Your task to perform on an android device: Add usb-c to usb-a to the cart on target.com, then select checkout. Image 0: 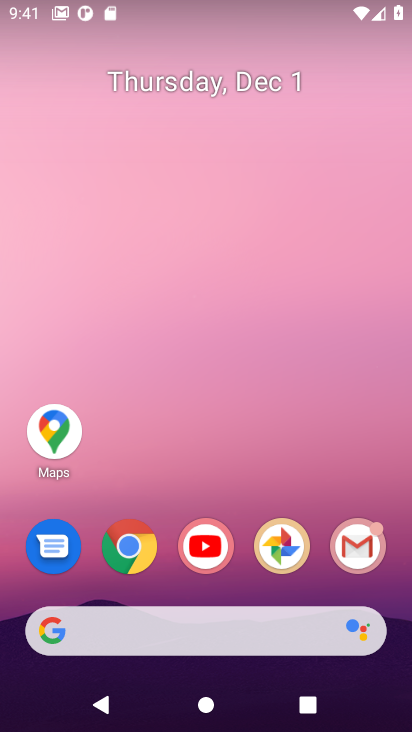
Step 0: click (122, 551)
Your task to perform on an android device: Add usb-c to usb-a to the cart on target.com, then select checkout. Image 1: 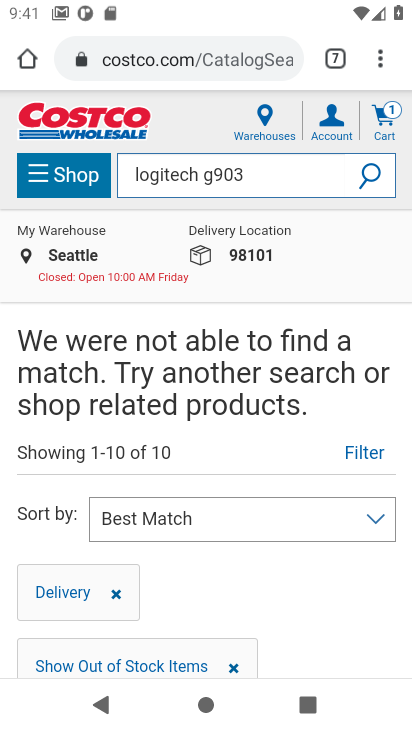
Step 1: click (139, 60)
Your task to perform on an android device: Add usb-c to usb-a to the cart on target.com, then select checkout. Image 2: 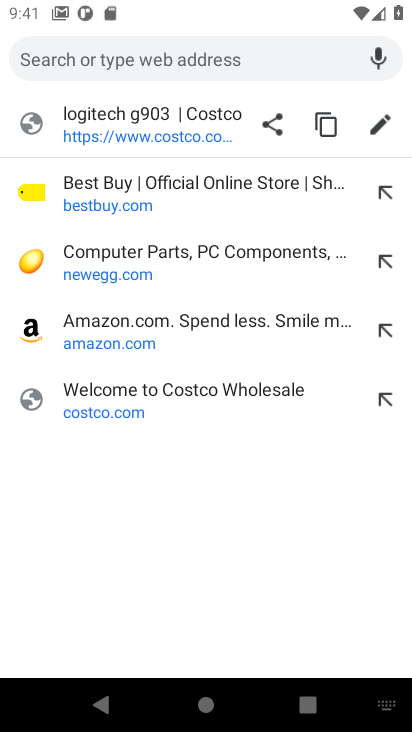
Step 2: type "target.com"
Your task to perform on an android device: Add usb-c to usb-a to the cart on target.com, then select checkout. Image 3: 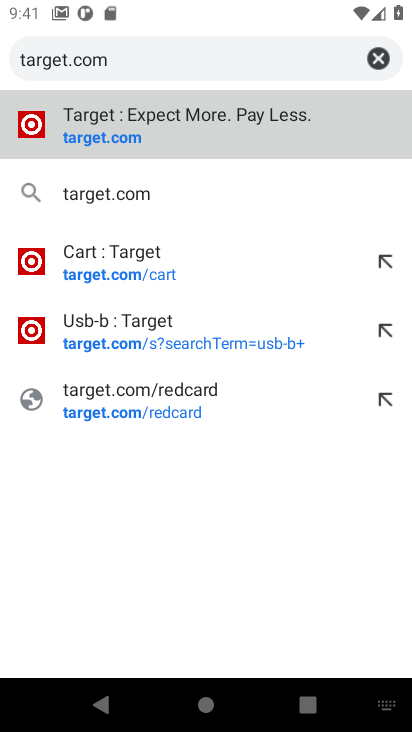
Step 3: click (104, 145)
Your task to perform on an android device: Add usb-c to usb-a to the cart on target.com, then select checkout. Image 4: 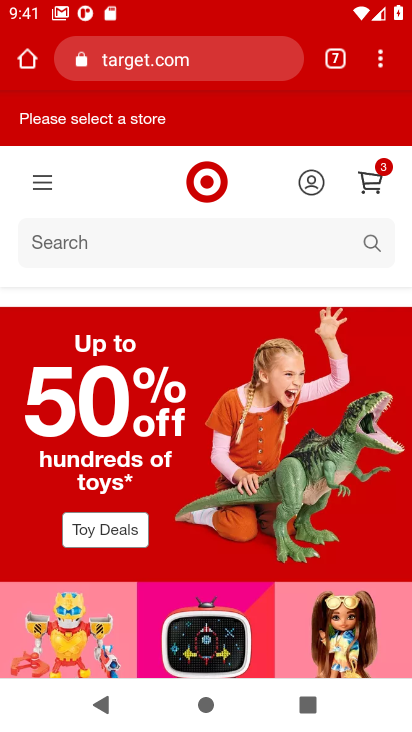
Step 4: click (34, 244)
Your task to perform on an android device: Add usb-c to usb-a to the cart on target.com, then select checkout. Image 5: 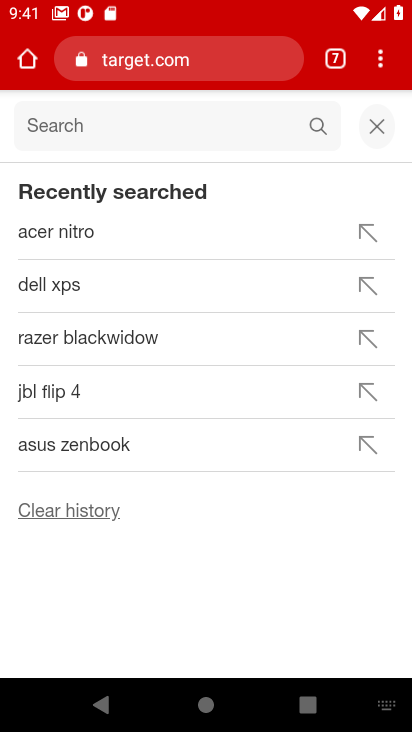
Step 5: type "usb-c to usb-a "
Your task to perform on an android device: Add usb-c to usb-a to the cart on target.com, then select checkout. Image 6: 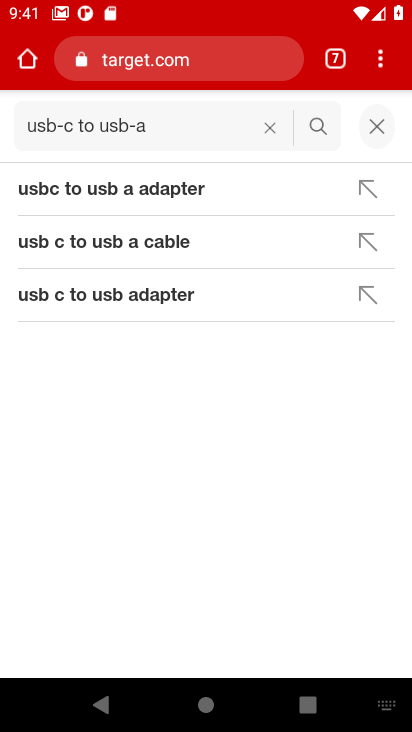
Step 6: click (319, 129)
Your task to perform on an android device: Add usb-c to usb-a to the cart on target.com, then select checkout. Image 7: 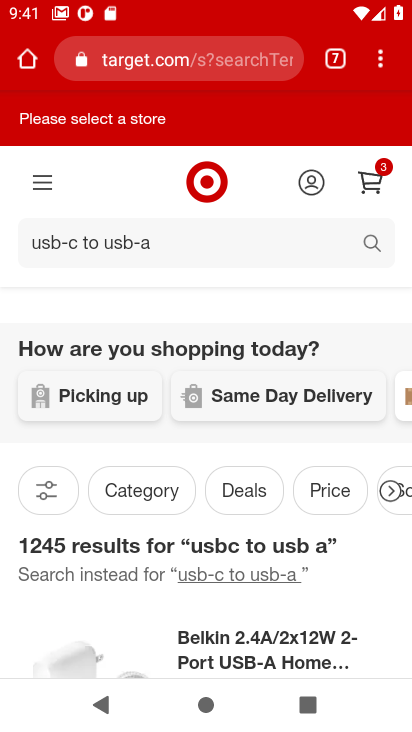
Step 7: drag from (119, 498) to (102, 257)
Your task to perform on an android device: Add usb-c to usb-a to the cart on target.com, then select checkout. Image 8: 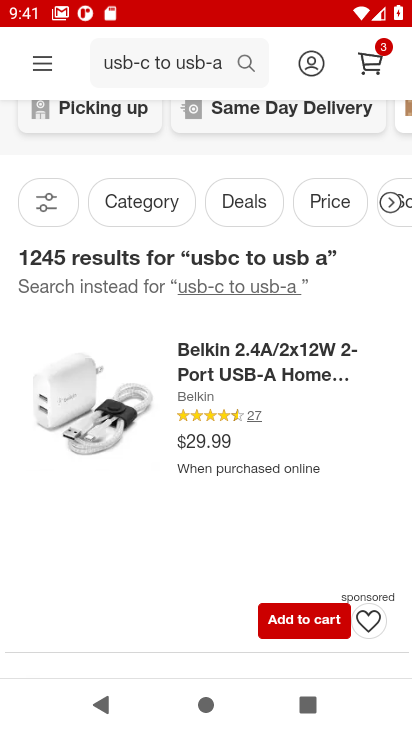
Step 8: drag from (112, 476) to (100, 289)
Your task to perform on an android device: Add usb-c to usb-a to the cart on target.com, then select checkout. Image 9: 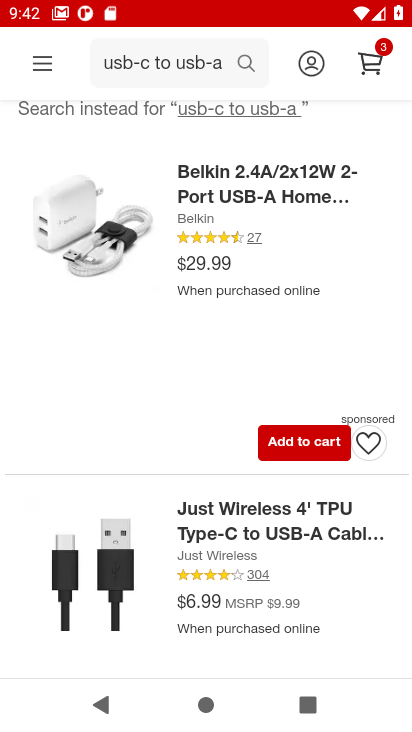
Step 9: drag from (80, 478) to (82, 310)
Your task to perform on an android device: Add usb-c to usb-a to the cart on target.com, then select checkout. Image 10: 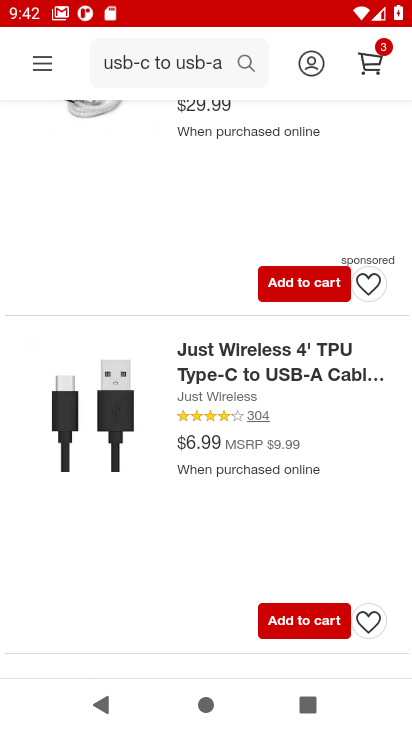
Step 10: drag from (95, 499) to (99, 158)
Your task to perform on an android device: Add usb-c to usb-a to the cart on target.com, then select checkout. Image 11: 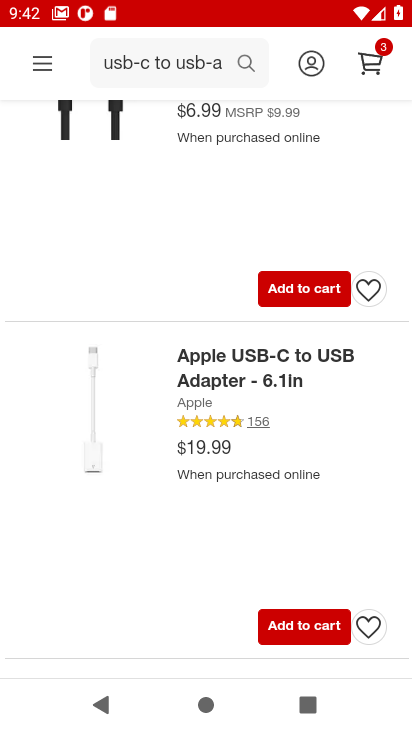
Step 11: drag from (106, 517) to (98, 227)
Your task to perform on an android device: Add usb-c to usb-a to the cart on target.com, then select checkout. Image 12: 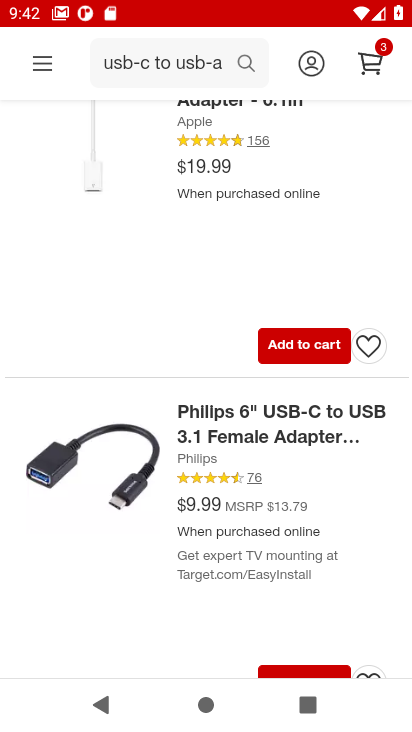
Step 12: drag from (92, 465) to (106, 199)
Your task to perform on an android device: Add usb-c to usb-a to the cart on target.com, then select checkout. Image 13: 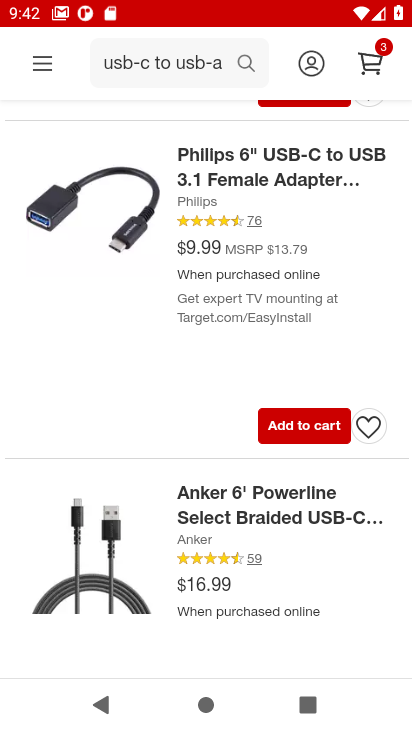
Step 13: drag from (94, 553) to (91, 305)
Your task to perform on an android device: Add usb-c to usb-a to the cart on target.com, then select checkout. Image 14: 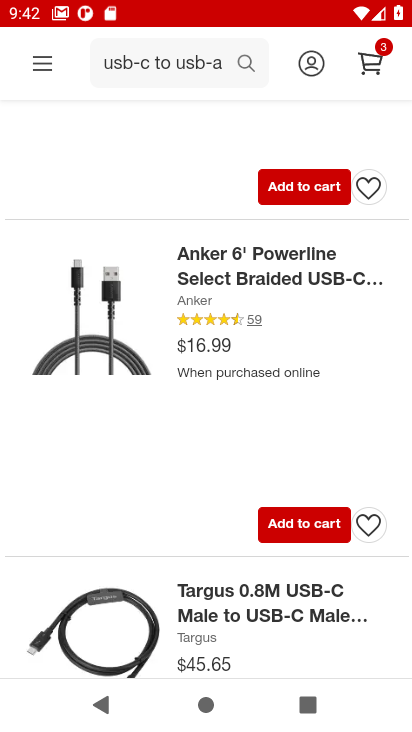
Step 14: click (288, 322)
Your task to perform on an android device: Add usb-c to usb-a to the cart on target.com, then select checkout. Image 15: 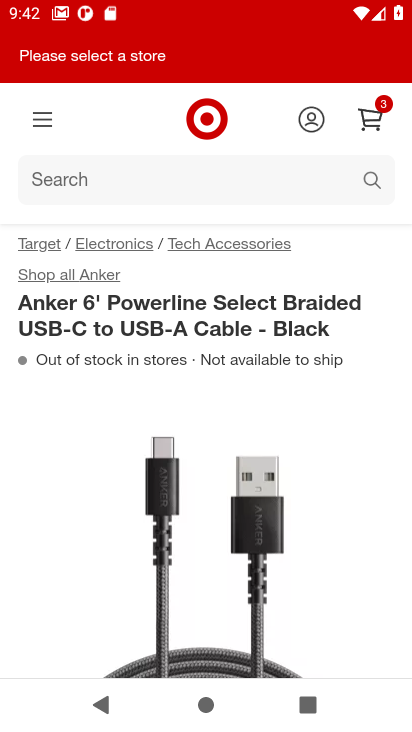
Step 15: drag from (227, 646) to (210, 131)
Your task to perform on an android device: Add usb-c to usb-a to the cart on target.com, then select checkout. Image 16: 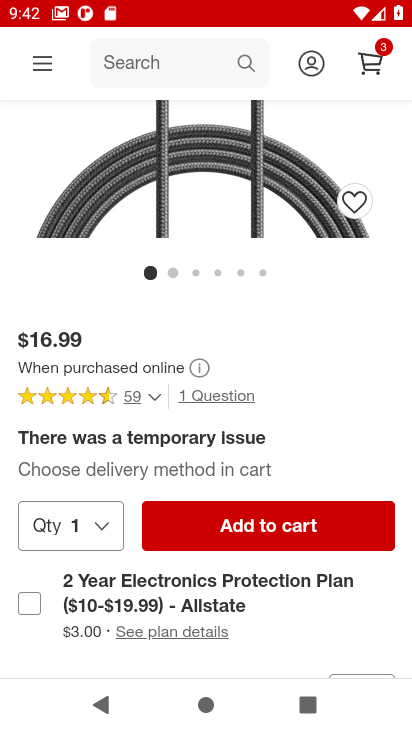
Step 16: click (266, 529)
Your task to perform on an android device: Add usb-c to usb-a to the cart on target.com, then select checkout. Image 17: 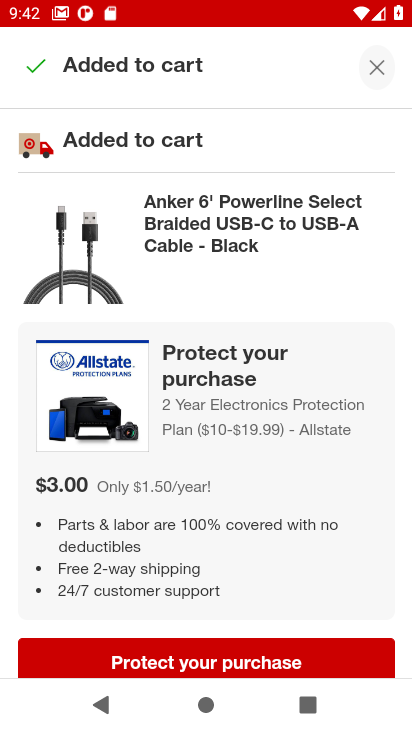
Step 17: click (378, 67)
Your task to perform on an android device: Add usb-c to usb-a to the cart on target.com, then select checkout. Image 18: 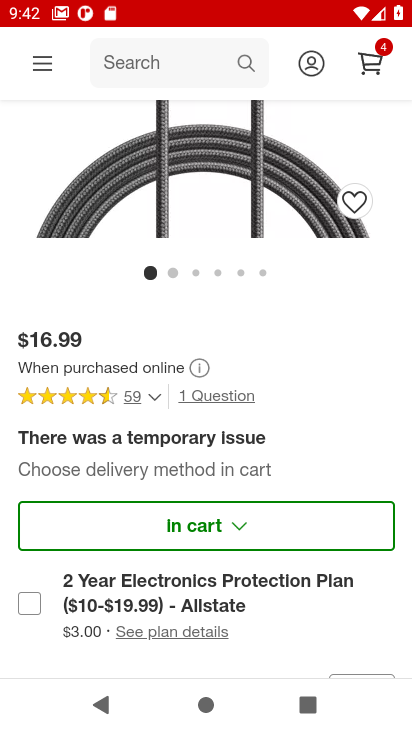
Step 18: click (374, 67)
Your task to perform on an android device: Add usb-c to usb-a to the cart on target.com, then select checkout. Image 19: 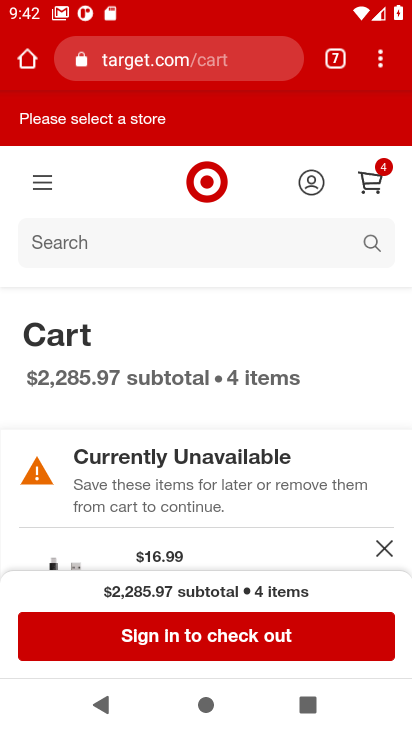
Step 19: click (197, 642)
Your task to perform on an android device: Add usb-c to usb-a to the cart on target.com, then select checkout. Image 20: 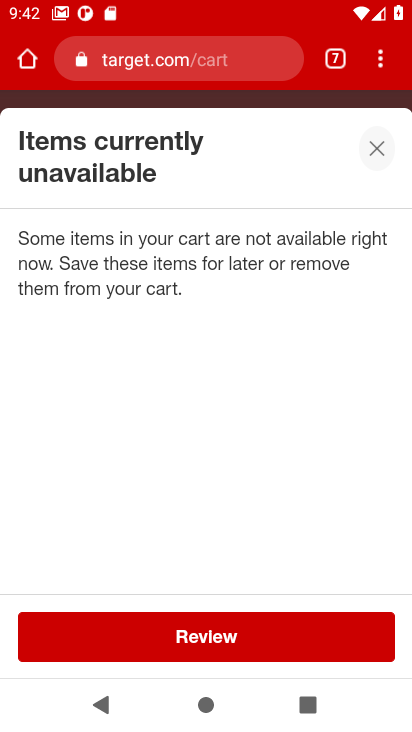
Step 20: task complete